Your task to perform on an android device: What is the recent news? Image 0: 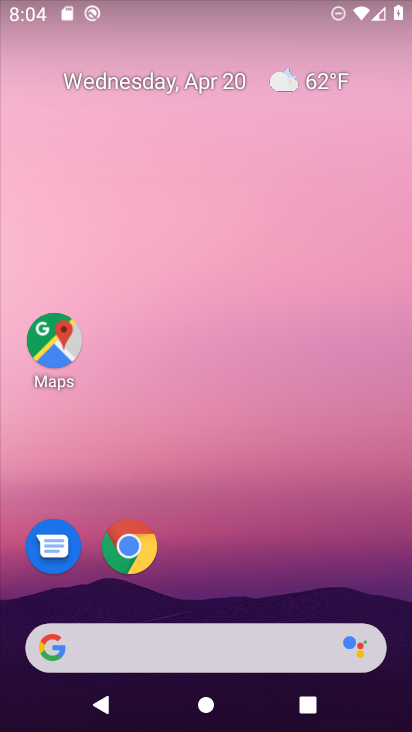
Step 0: click (49, 644)
Your task to perform on an android device: What is the recent news? Image 1: 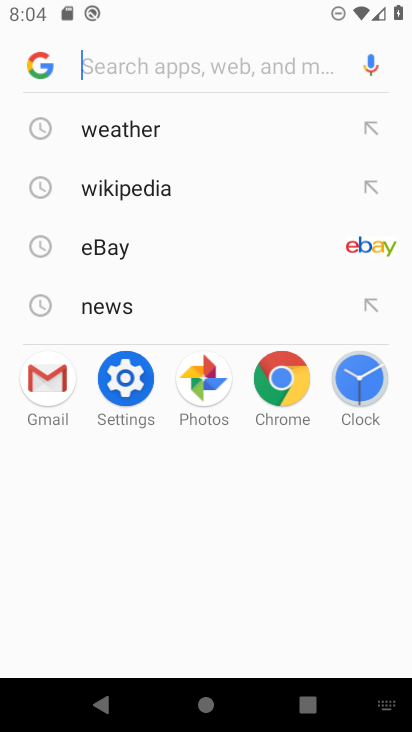
Step 1: click (44, 67)
Your task to perform on an android device: What is the recent news? Image 2: 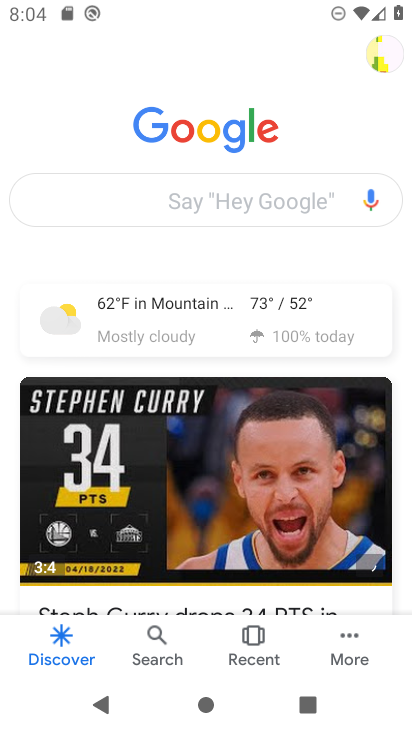
Step 2: task complete